Your task to perform on an android device: Open the phone app and click the voicemail tab. Image 0: 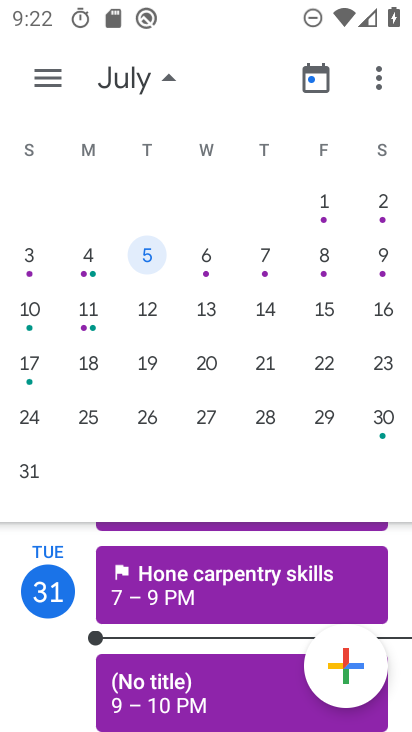
Step 0: press home button
Your task to perform on an android device: Open the phone app and click the voicemail tab. Image 1: 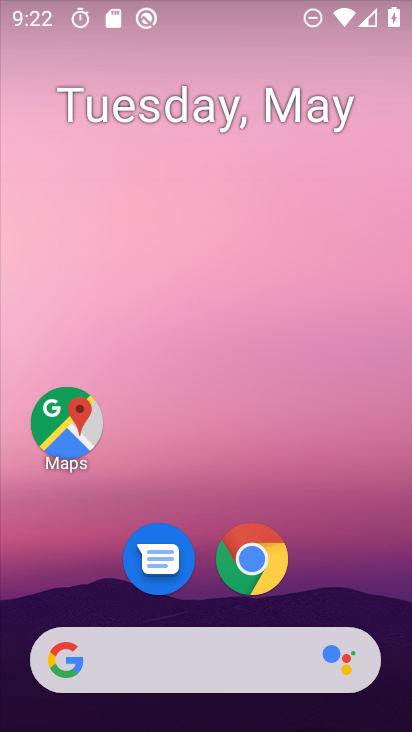
Step 1: drag from (404, 641) to (314, 17)
Your task to perform on an android device: Open the phone app and click the voicemail tab. Image 2: 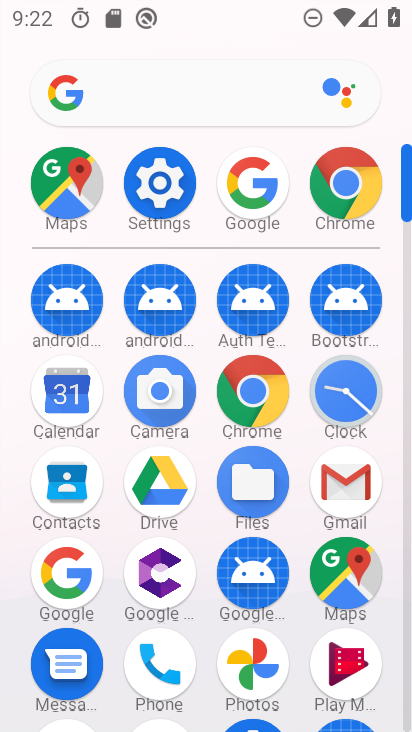
Step 2: click (149, 652)
Your task to perform on an android device: Open the phone app and click the voicemail tab. Image 3: 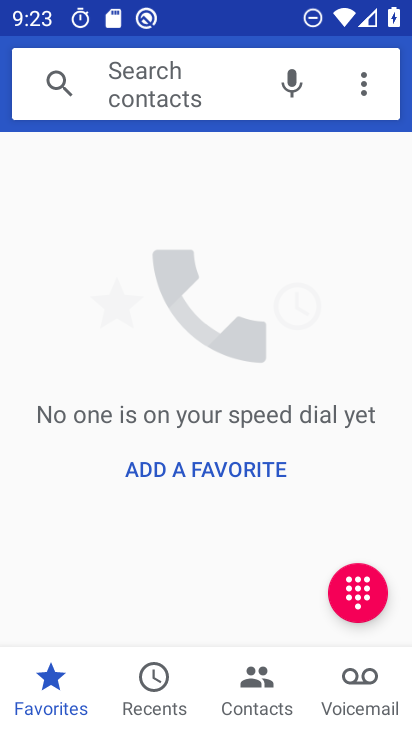
Step 3: click (352, 679)
Your task to perform on an android device: Open the phone app and click the voicemail tab. Image 4: 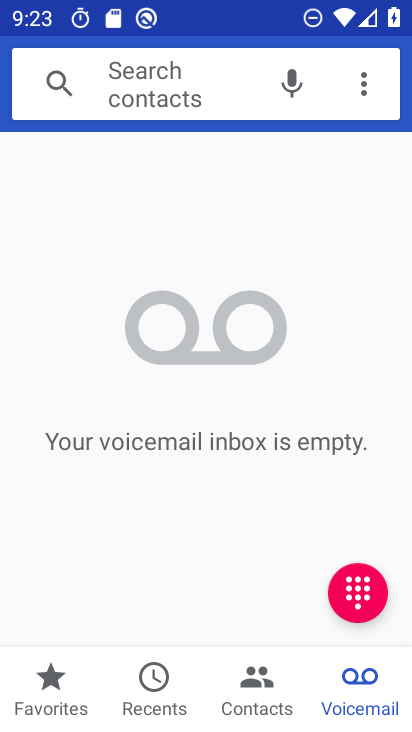
Step 4: task complete